Your task to perform on an android device: toggle show notifications on the lock screen Image 0: 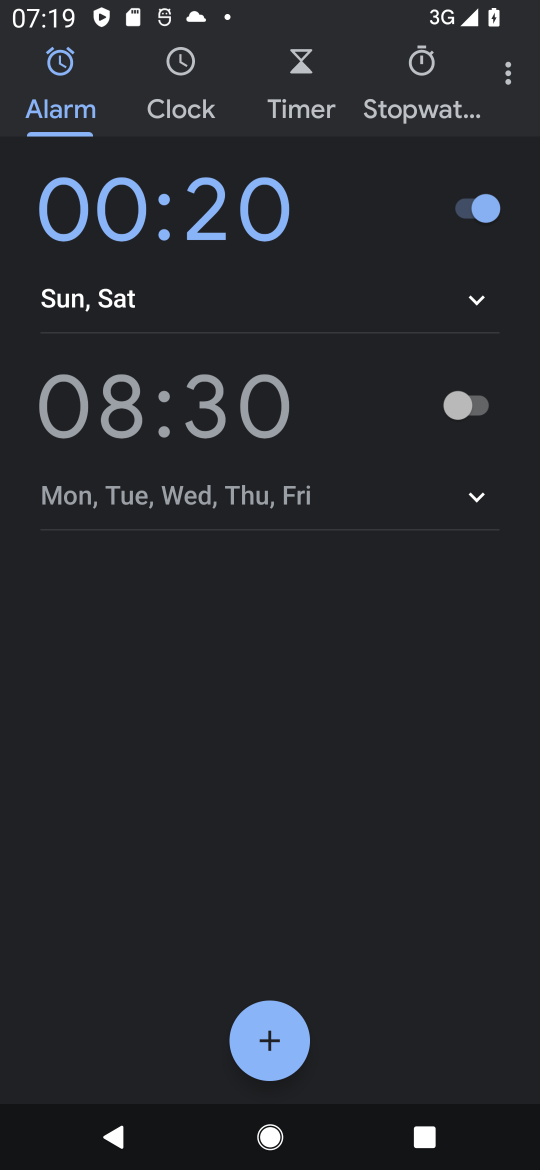
Step 0: press home button
Your task to perform on an android device: toggle show notifications on the lock screen Image 1: 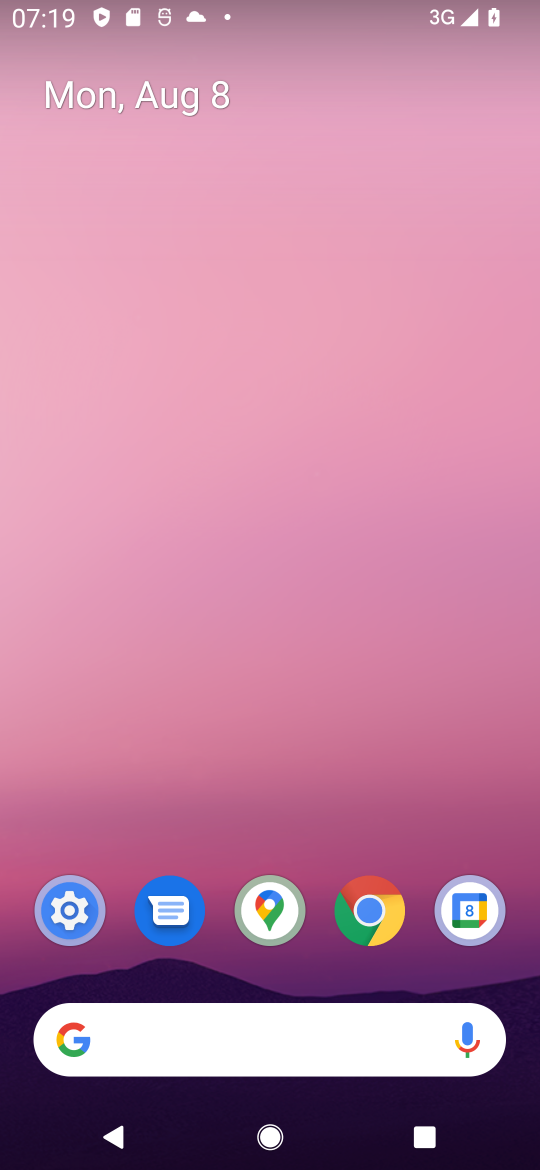
Step 1: drag from (217, 1051) to (299, 443)
Your task to perform on an android device: toggle show notifications on the lock screen Image 2: 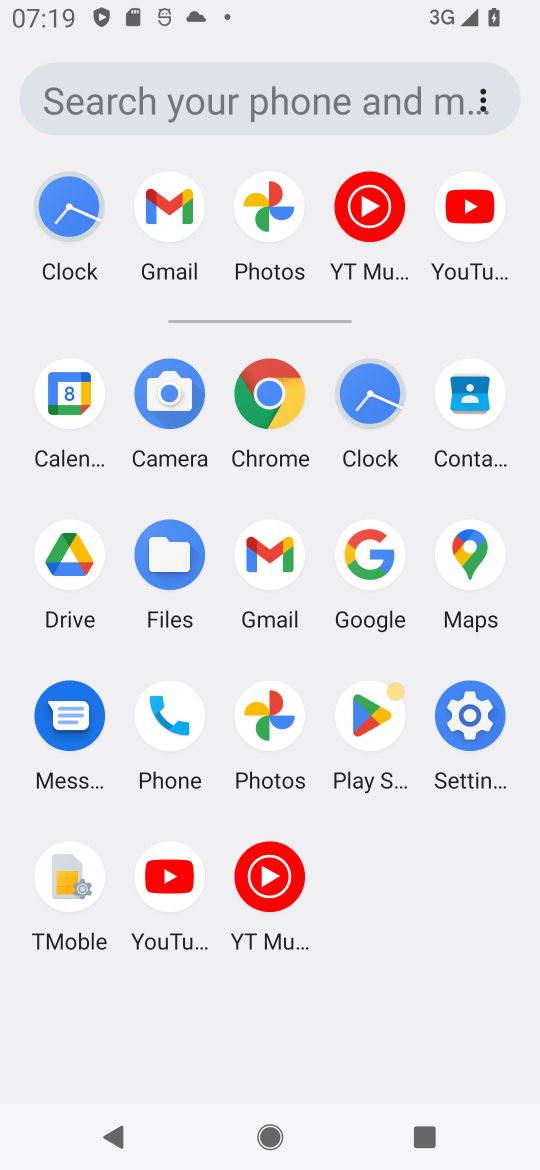
Step 2: click (469, 714)
Your task to perform on an android device: toggle show notifications on the lock screen Image 3: 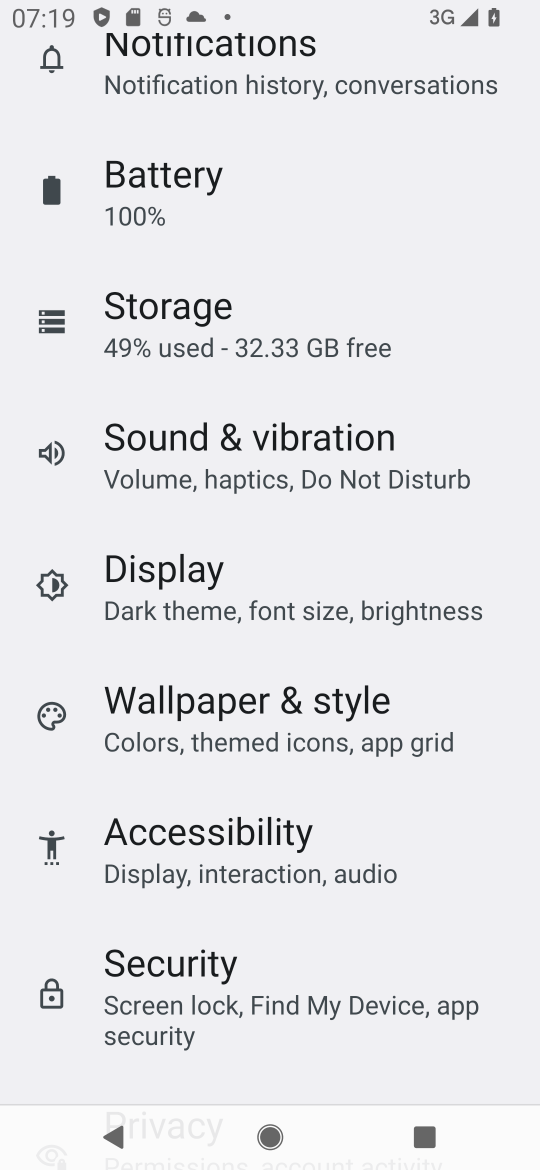
Step 3: click (399, 88)
Your task to perform on an android device: toggle show notifications on the lock screen Image 4: 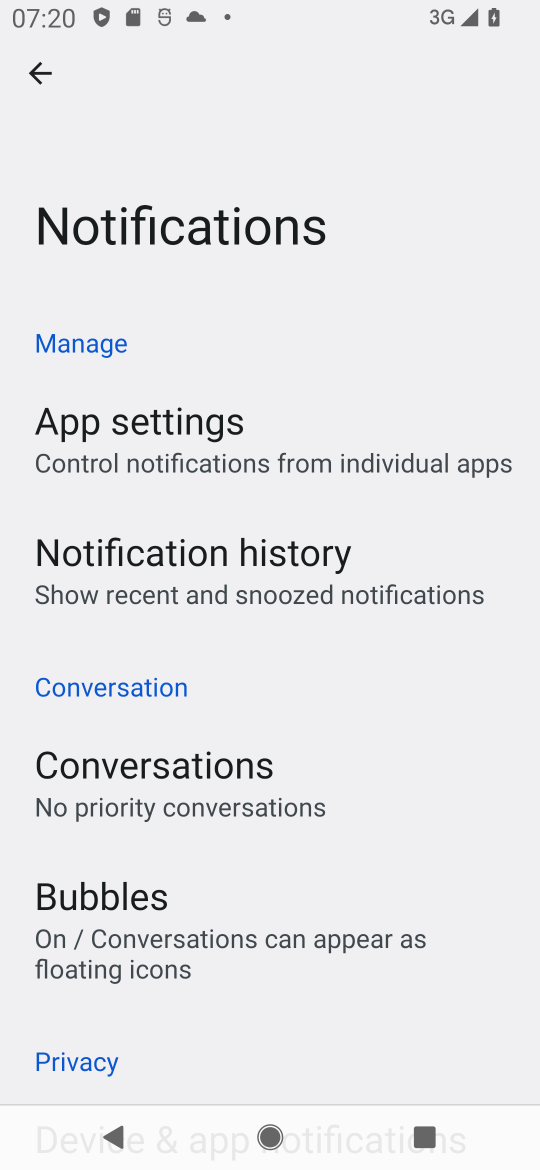
Step 4: drag from (219, 951) to (349, 774)
Your task to perform on an android device: toggle show notifications on the lock screen Image 5: 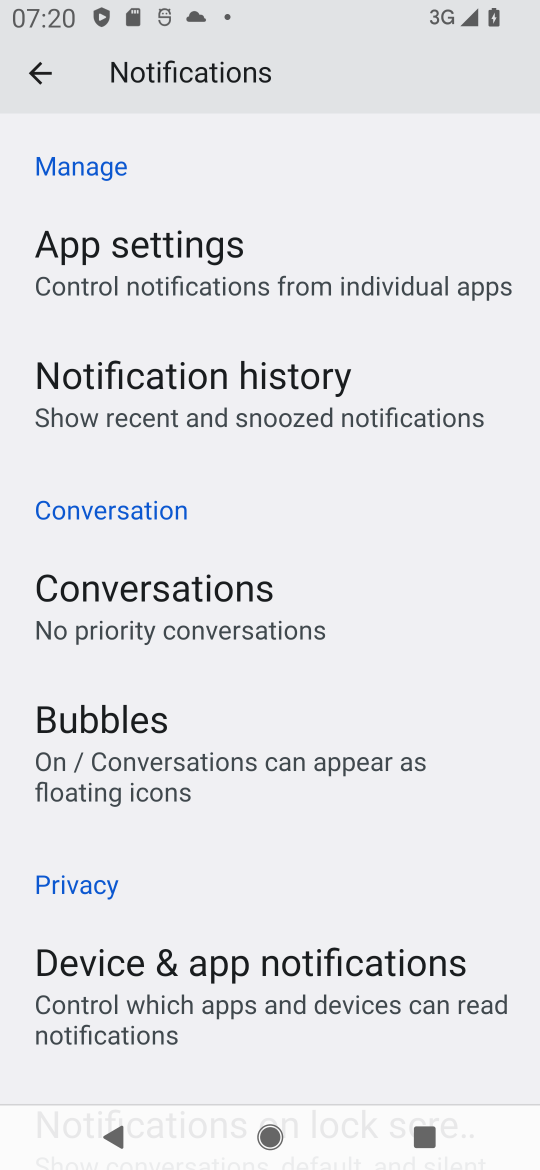
Step 5: drag from (226, 918) to (399, 725)
Your task to perform on an android device: toggle show notifications on the lock screen Image 6: 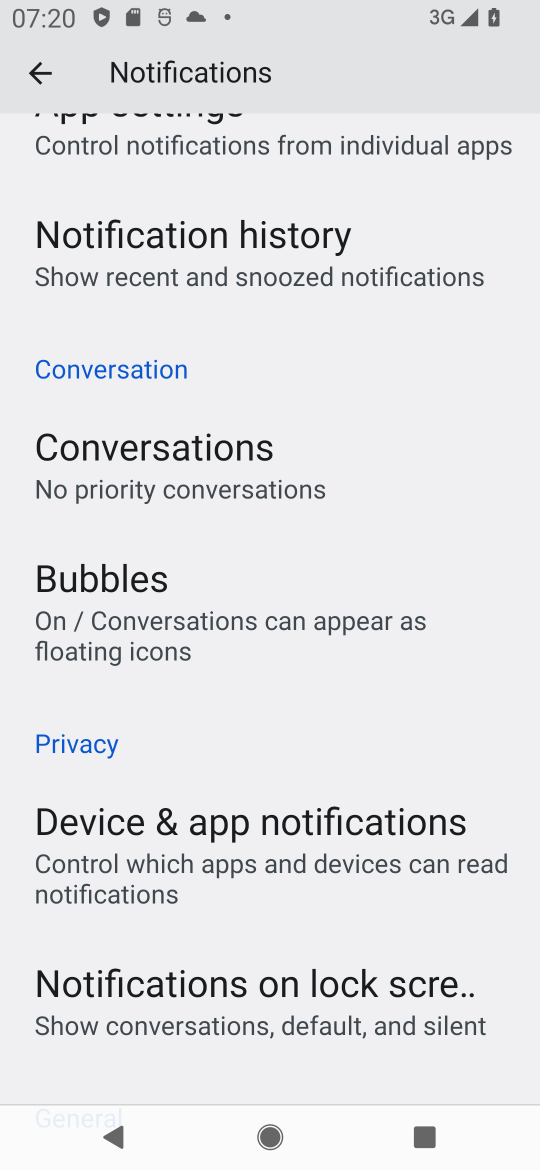
Step 6: click (245, 990)
Your task to perform on an android device: toggle show notifications on the lock screen Image 7: 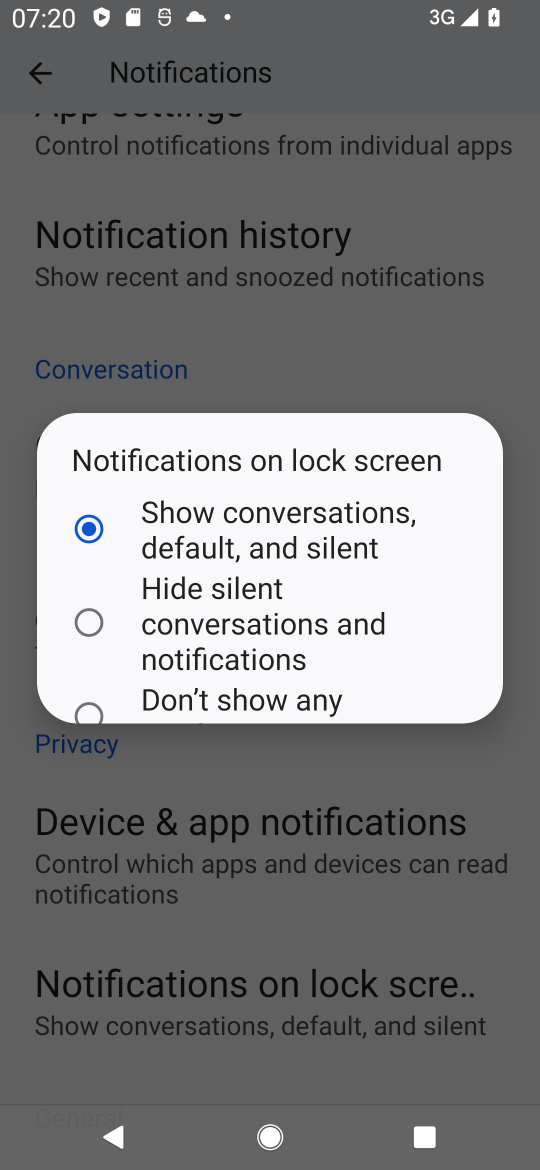
Step 7: click (89, 710)
Your task to perform on an android device: toggle show notifications on the lock screen Image 8: 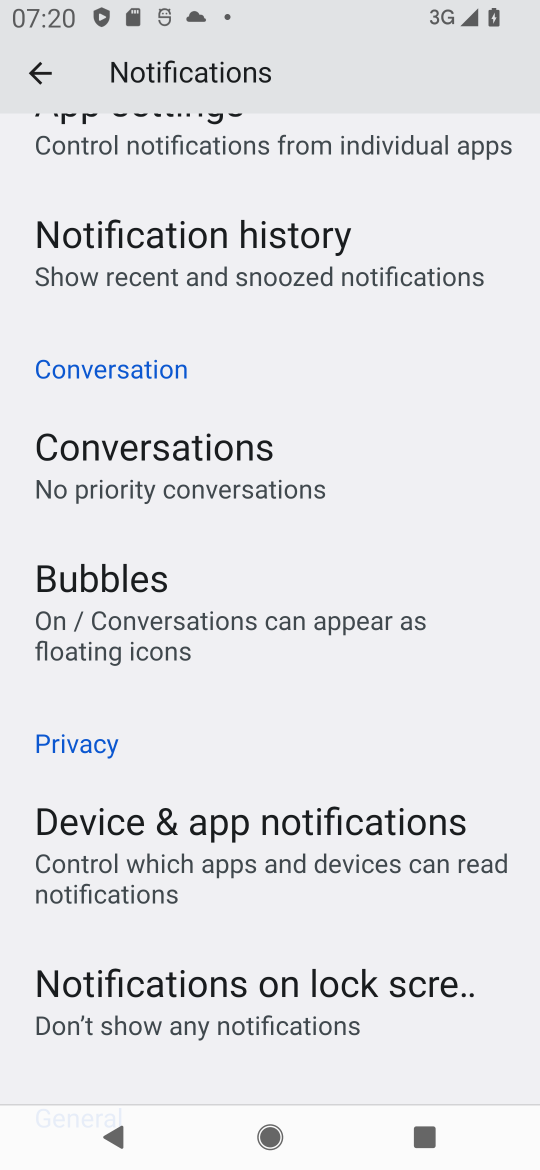
Step 8: task complete